Your task to perform on an android device: delete location history Image 0: 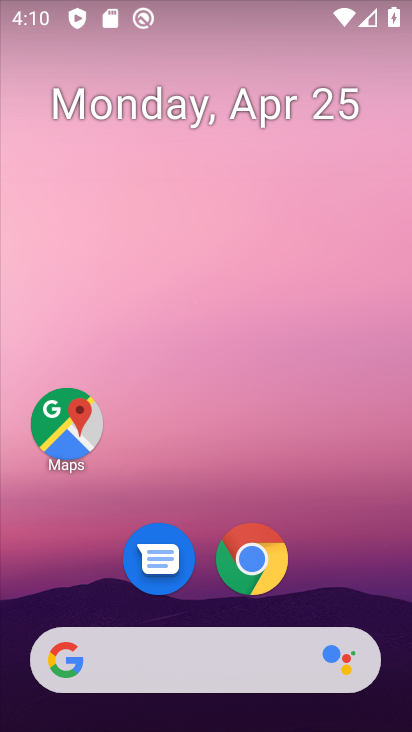
Step 0: click (68, 425)
Your task to perform on an android device: delete location history Image 1: 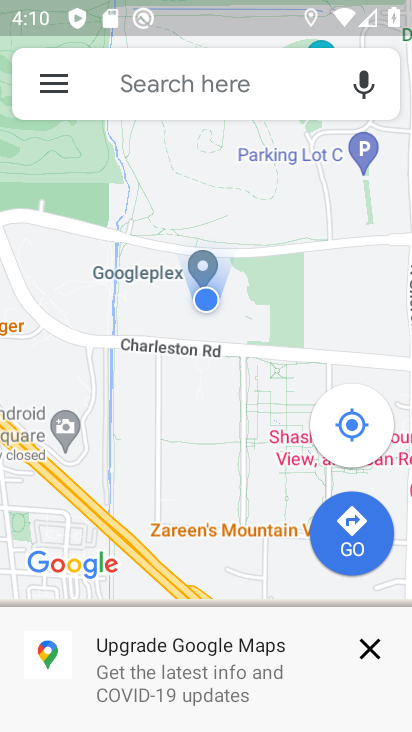
Step 1: click (57, 86)
Your task to perform on an android device: delete location history Image 2: 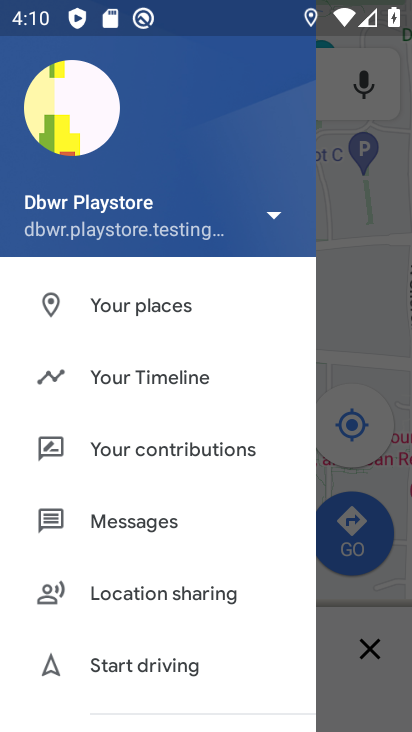
Step 2: drag from (112, 491) to (142, 390)
Your task to perform on an android device: delete location history Image 3: 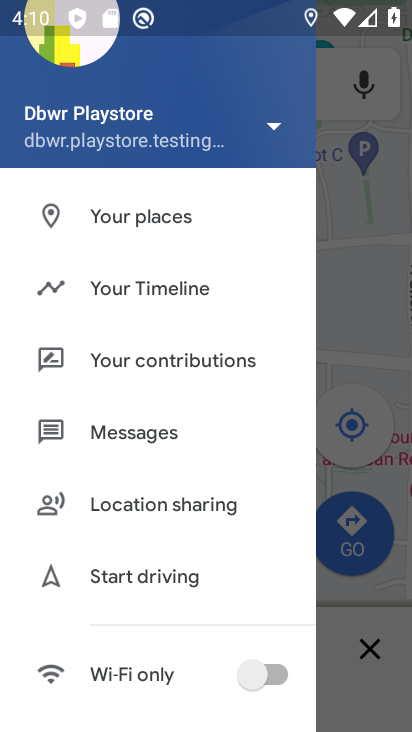
Step 3: drag from (113, 530) to (156, 429)
Your task to perform on an android device: delete location history Image 4: 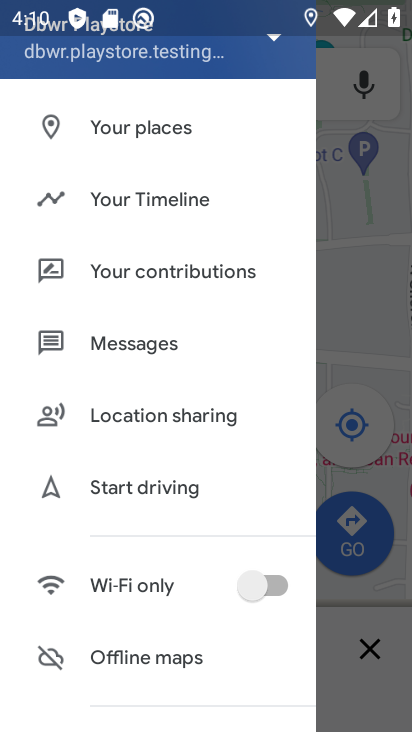
Step 4: drag from (117, 558) to (162, 473)
Your task to perform on an android device: delete location history Image 5: 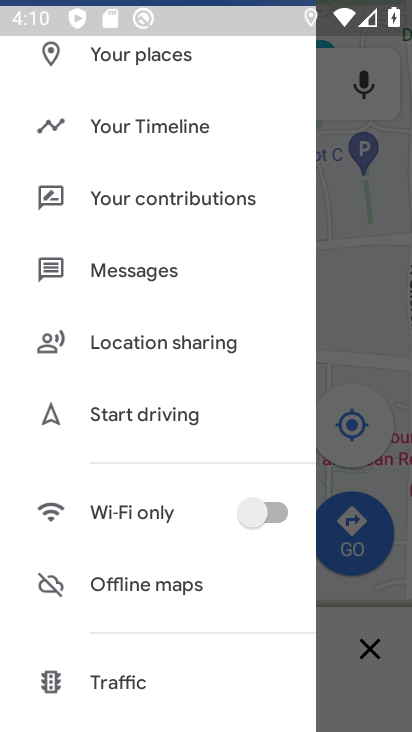
Step 5: drag from (109, 608) to (163, 499)
Your task to perform on an android device: delete location history Image 6: 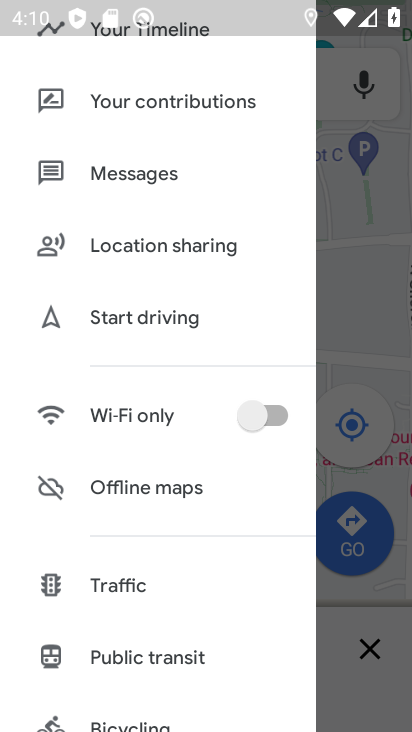
Step 6: drag from (97, 608) to (150, 507)
Your task to perform on an android device: delete location history Image 7: 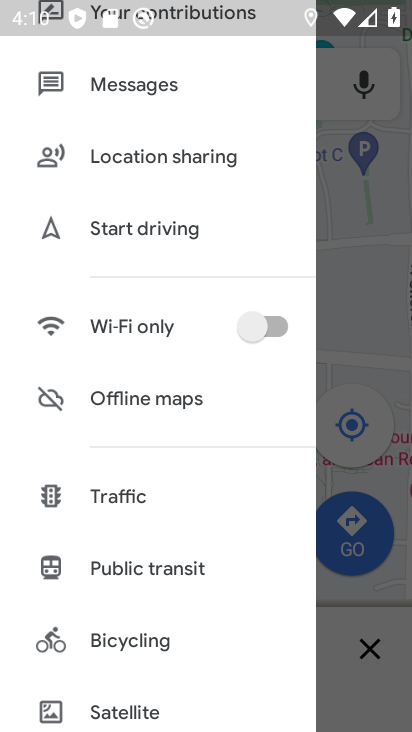
Step 7: drag from (69, 603) to (131, 520)
Your task to perform on an android device: delete location history Image 8: 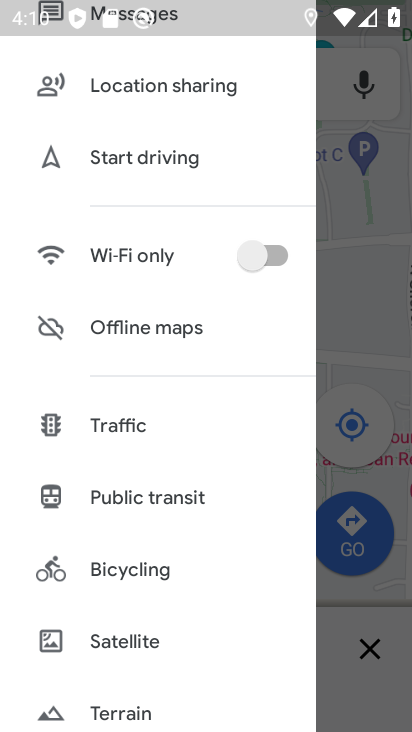
Step 8: drag from (59, 610) to (147, 506)
Your task to perform on an android device: delete location history Image 9: 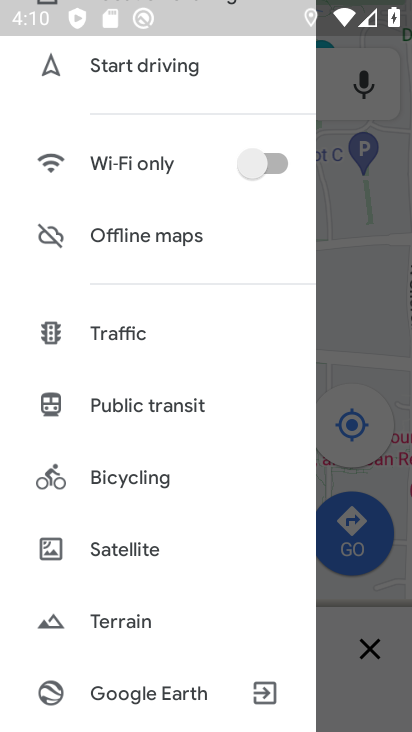
Step 9: drag from (46, 603) to (147, 497)
Your task to perform on an android device: delete location history Image 10: 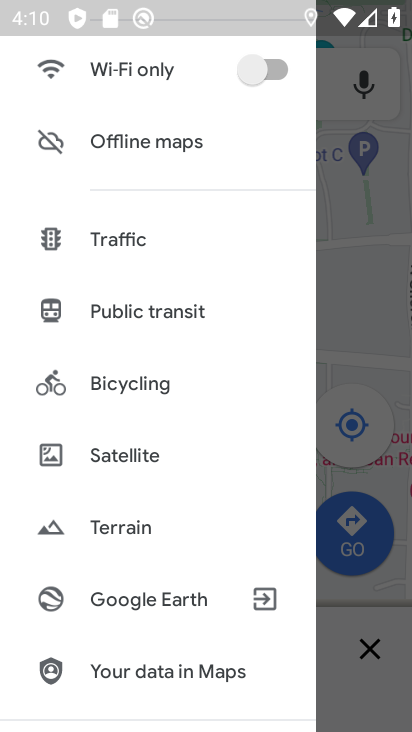
Step 10: drag from (51, 569) to (134, 479)
Your task to perform on an android device: delete location history Image 11: 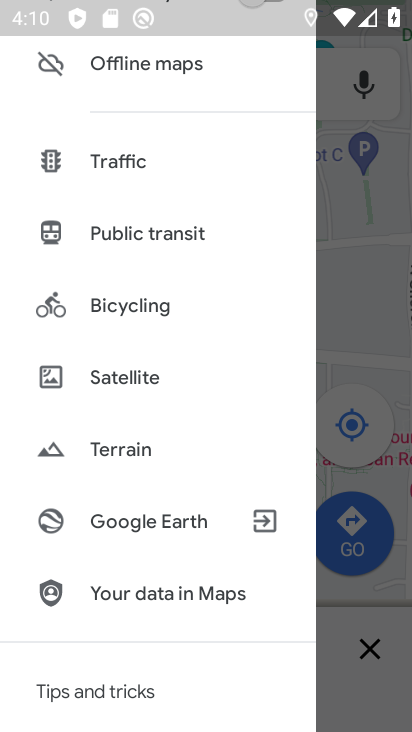
Step 11: drag from (73, 540) to (162, 444)
Your task to perform on an android device: delete location history Image 12: 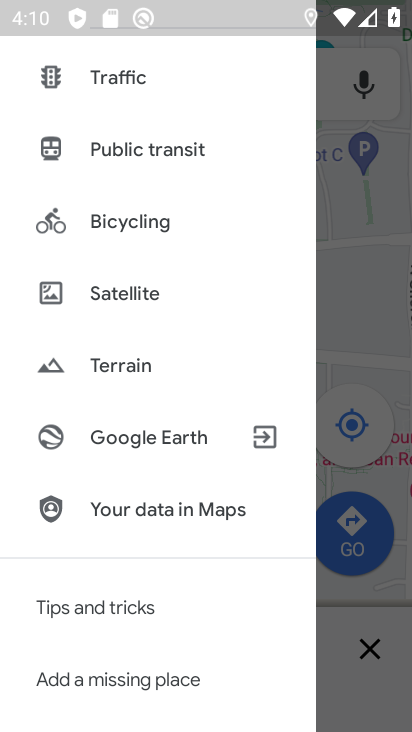
Step 12: drag from (52, 577) to (147, 462)
Your task to perform on an android device: delete location history Image 13: 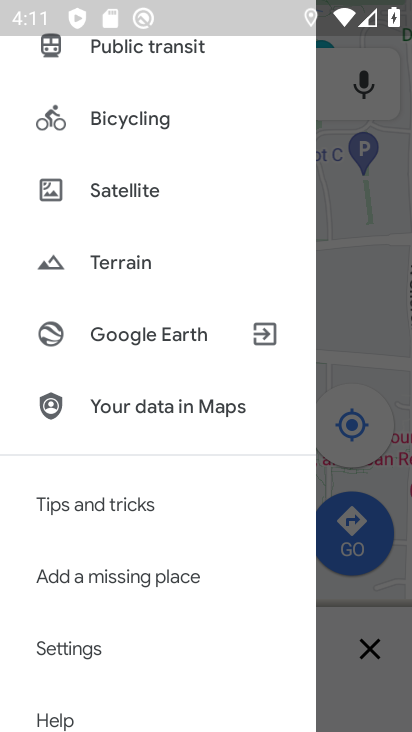
Step 13: drag from (30, 612) to (145, 489)
Your task to perform on an android device: delete location history Image 14: 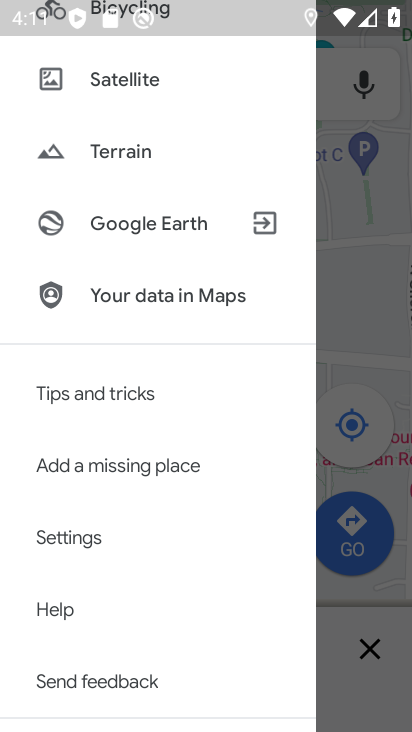
Step 14: click (80, 537)
Your task to perform on an android device: delete location history Image 15: 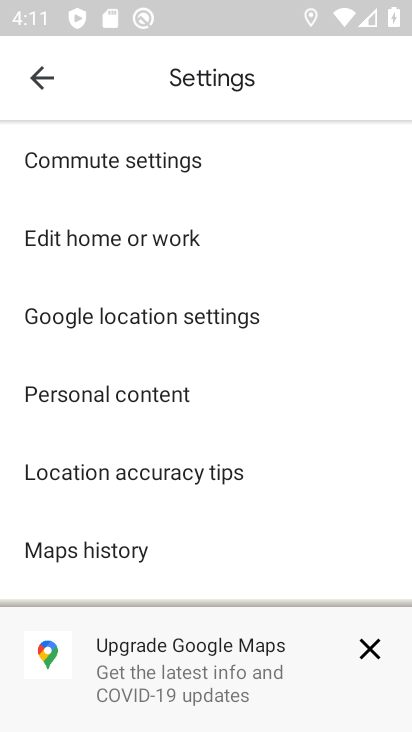
Step 15: click (128, 390)
Your task to perform on an android device: delete location history Image 16: 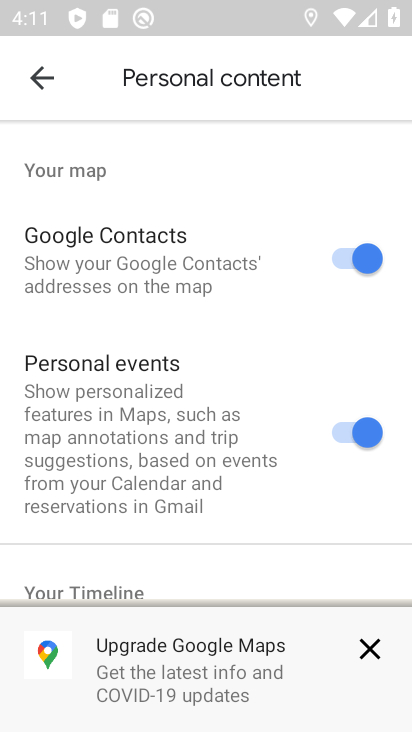
Step 16: click (369, 648)
Your task to perform on an android device: delete location history Image 17: 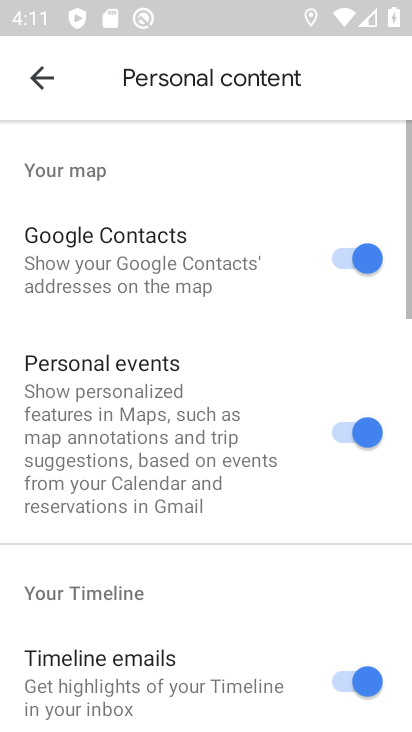
Step 17: drag from (177, 569) to (209, 392)
Your task to perform on an android device: delete location history Image 18: 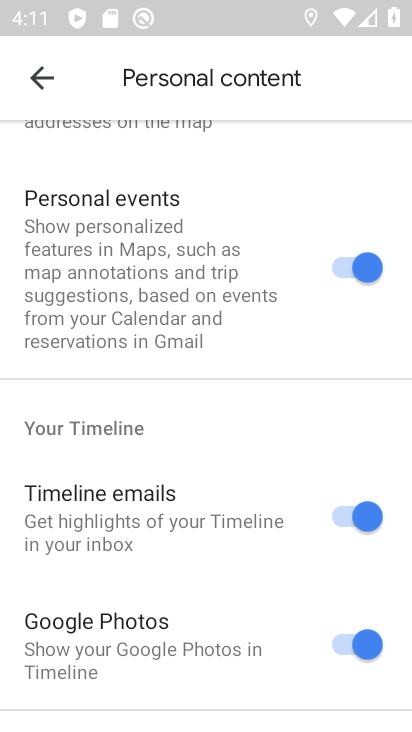
Step 18: drag from (194, 430) to (233, 345)
Your task to perform on an android device: delete location history Image 19: 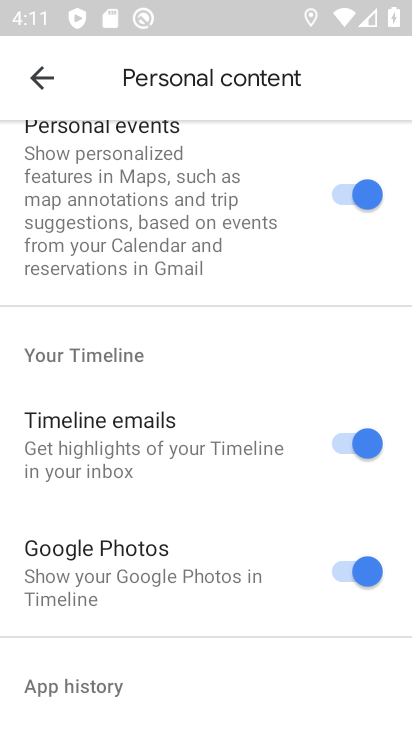
Step 19: drag from (145, 654) to (222, 457)
Your task to perform on an android device: delete location history Image 20: 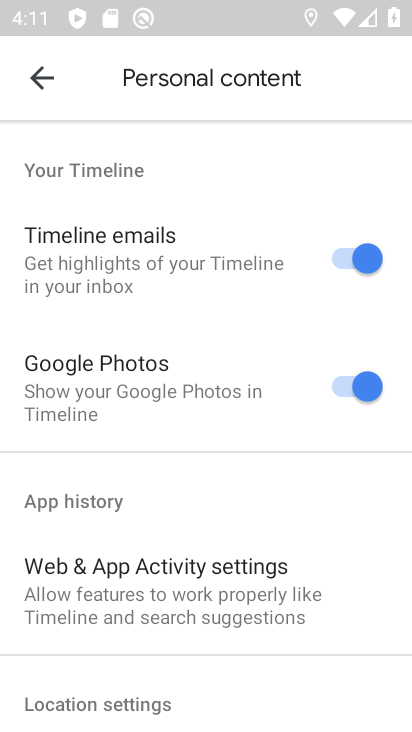
Step 20: drag from (199, 497) to (259, 361)
Your task to perform on an android device: delete location history Image 21: 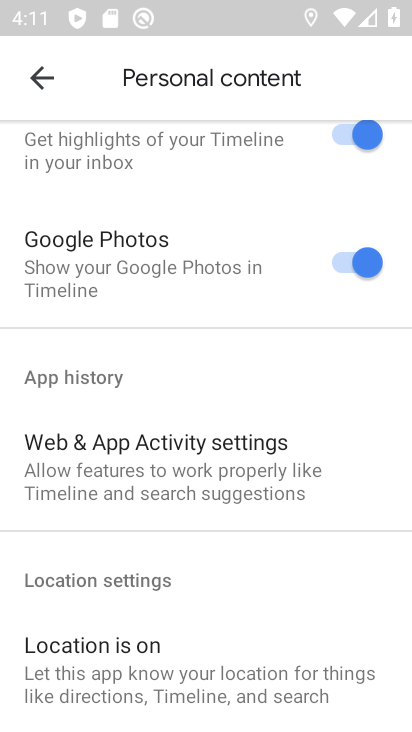
Step 21: drag from (168, 577) to (242, 448)
Your task to perform on an android device: delete location history Image 22: 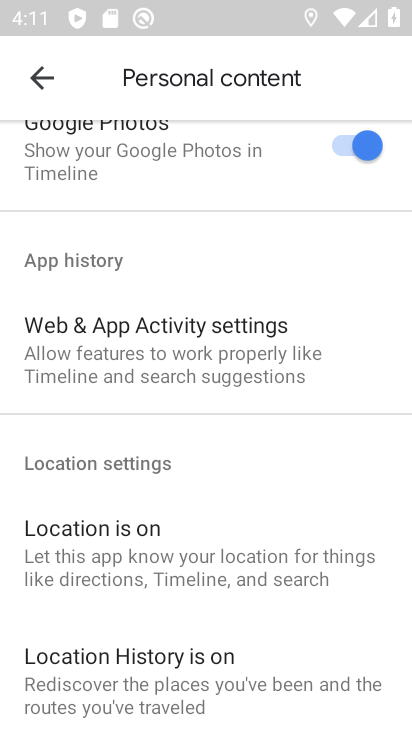
Step 22: drag from (149, 622) to (272, 410)
Your task to perform on an android device: delete location history Image 23: 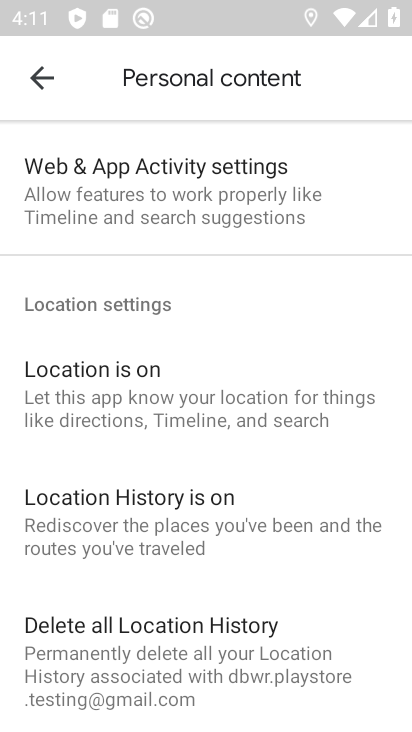
Step 23: drag from (167, 584) to (337, 390)
Your task to perform on an android device: delete location history Image 24: 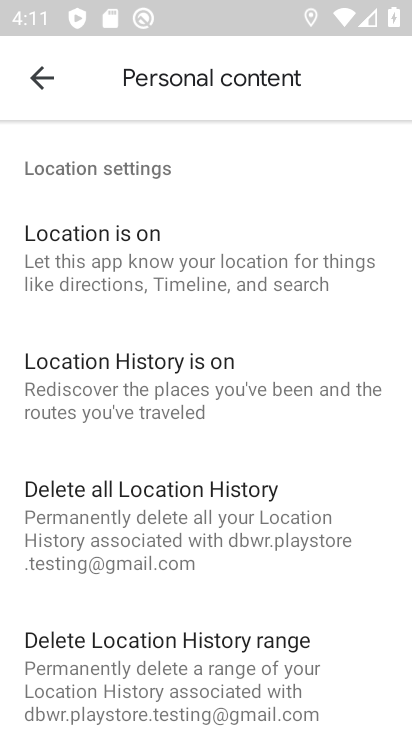
Step 24: click (181, 489)
Your task to perform on an android device: delete location history Image 25: 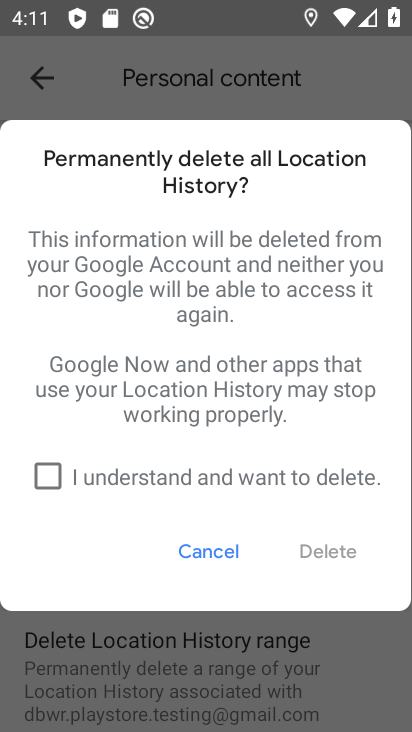
Step 25: click (50, 479)
Your task to perform on an android device: delete location history Image 26: 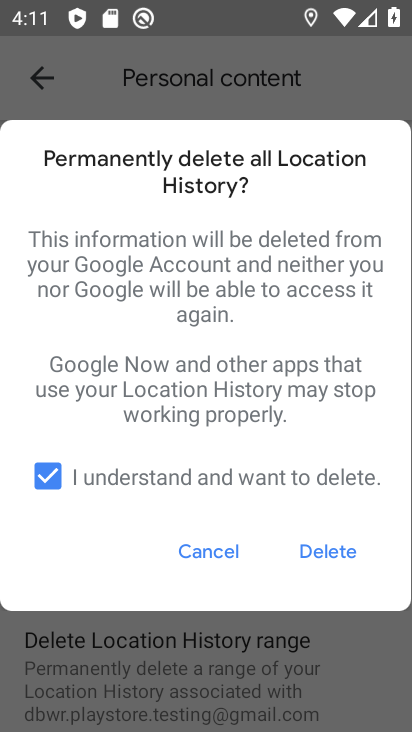
Step 26: click (340, 545)
Your task to perform on an android device: delete location history Image 27: 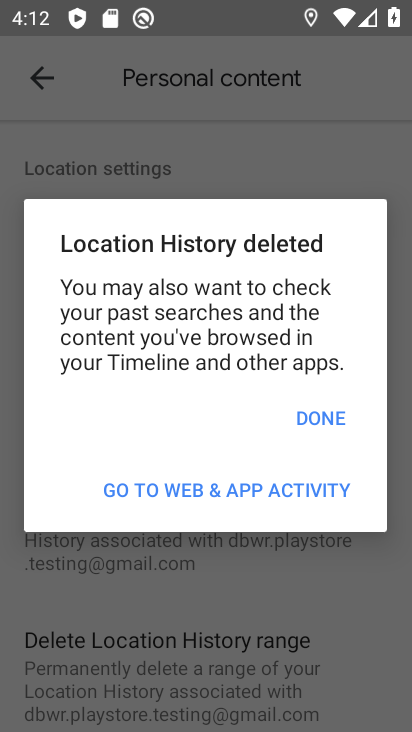
Step 27: click (319, 406)
Your task to perform on an android device: delete location history Image 28: 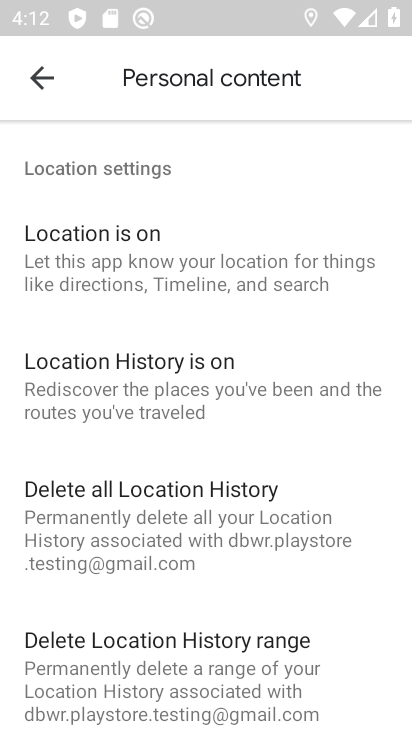
Step 28: task complete